Your task to perform on an android device: toggle airplane mode Image 0: 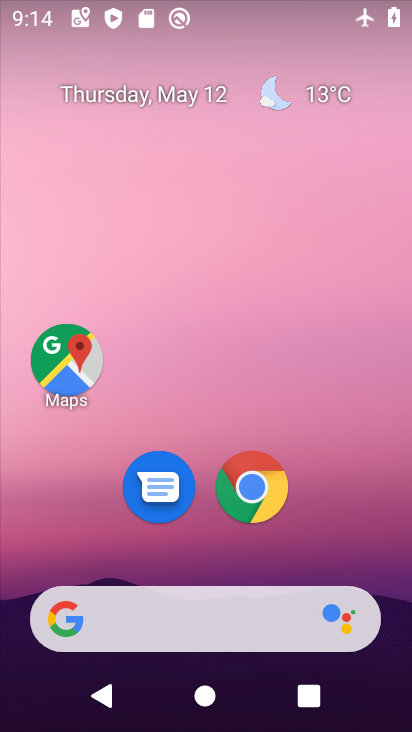
Step 0: drag from (371, 552) to (287, 15)
Your task to perform on an android device: toggle airplane mode Image 1: 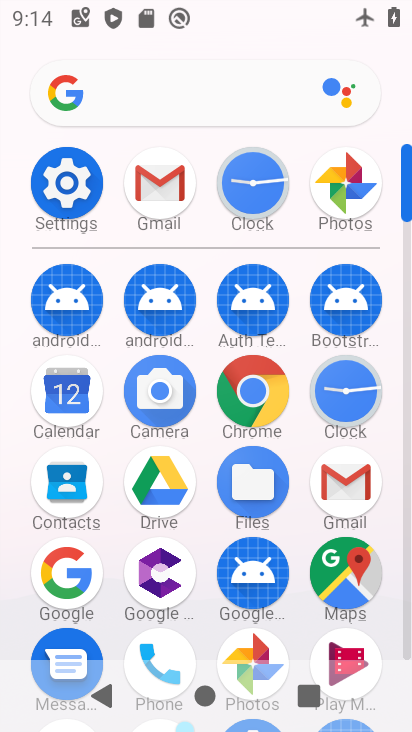
Step 1: click (68, 182)
Your task to perform on an android device: toggle airplane mode Image 2: 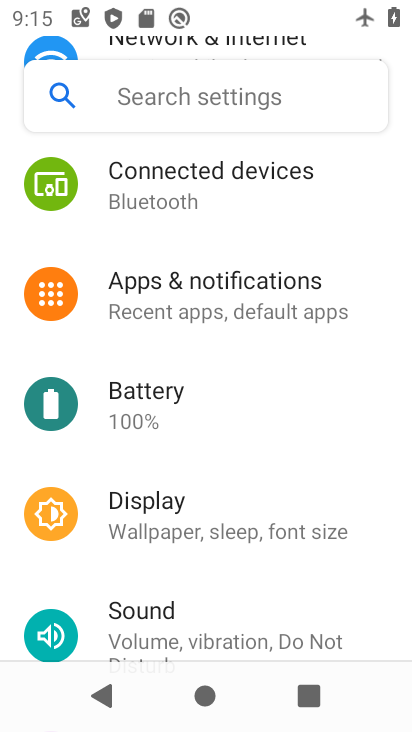
Step 2: drag from (357, 241) to (357, 501)
Your task to perform on an android device: toggle airplane mode Image 3: 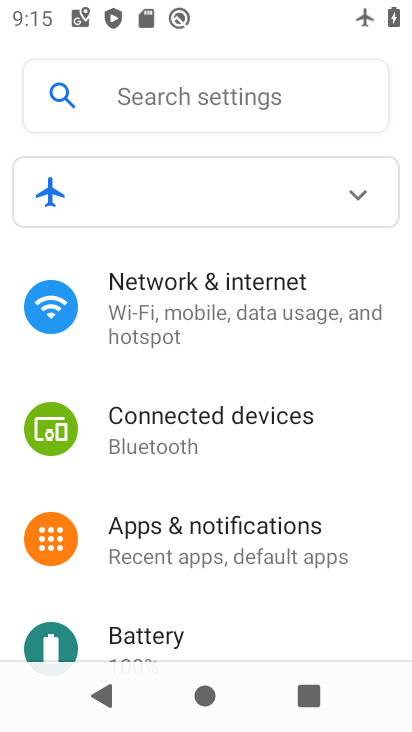
Step 3: click (147, 328)
Your task to perform on an android device: toggle airplane mode Image 4: 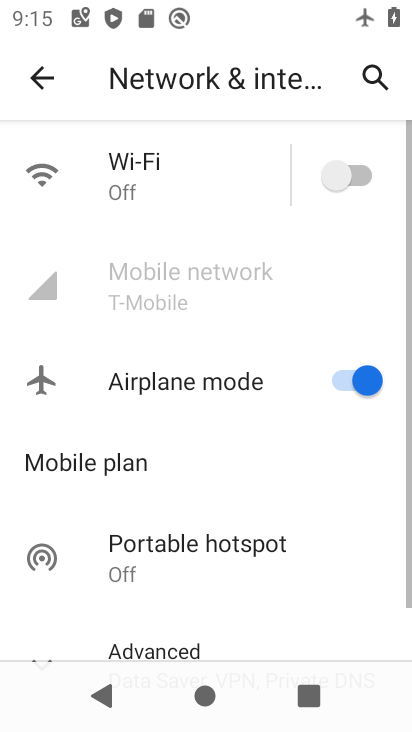
Step 4: click (353, 390)
Your task to perform on an android device: toggle airplane mode Image 5: 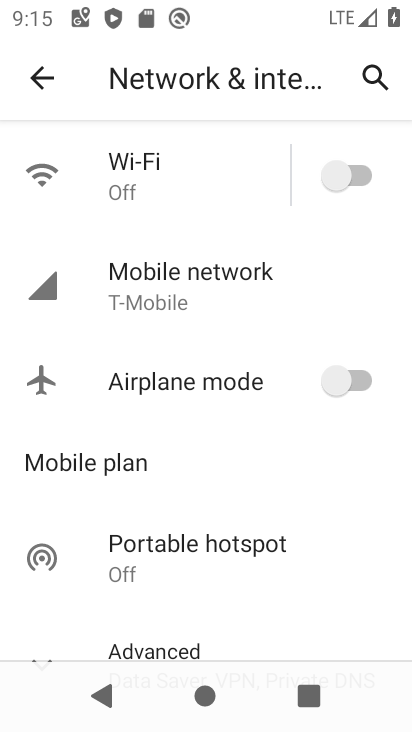
Step 5: task complete